Your task to perform on an android device: change your default location settings in chrome Image 0: 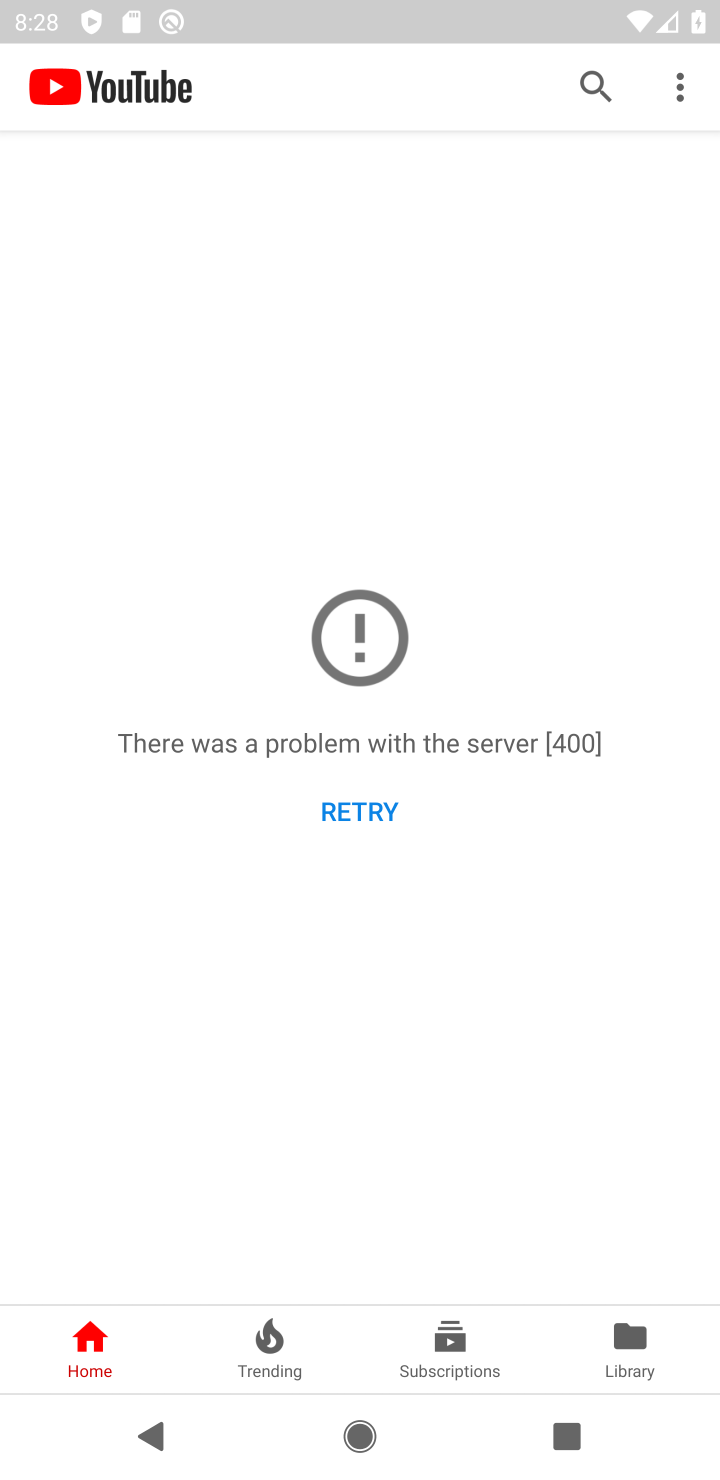
Step 0: press home button
Your task to perform on an android device: change your default location settings in chrome Image 1: 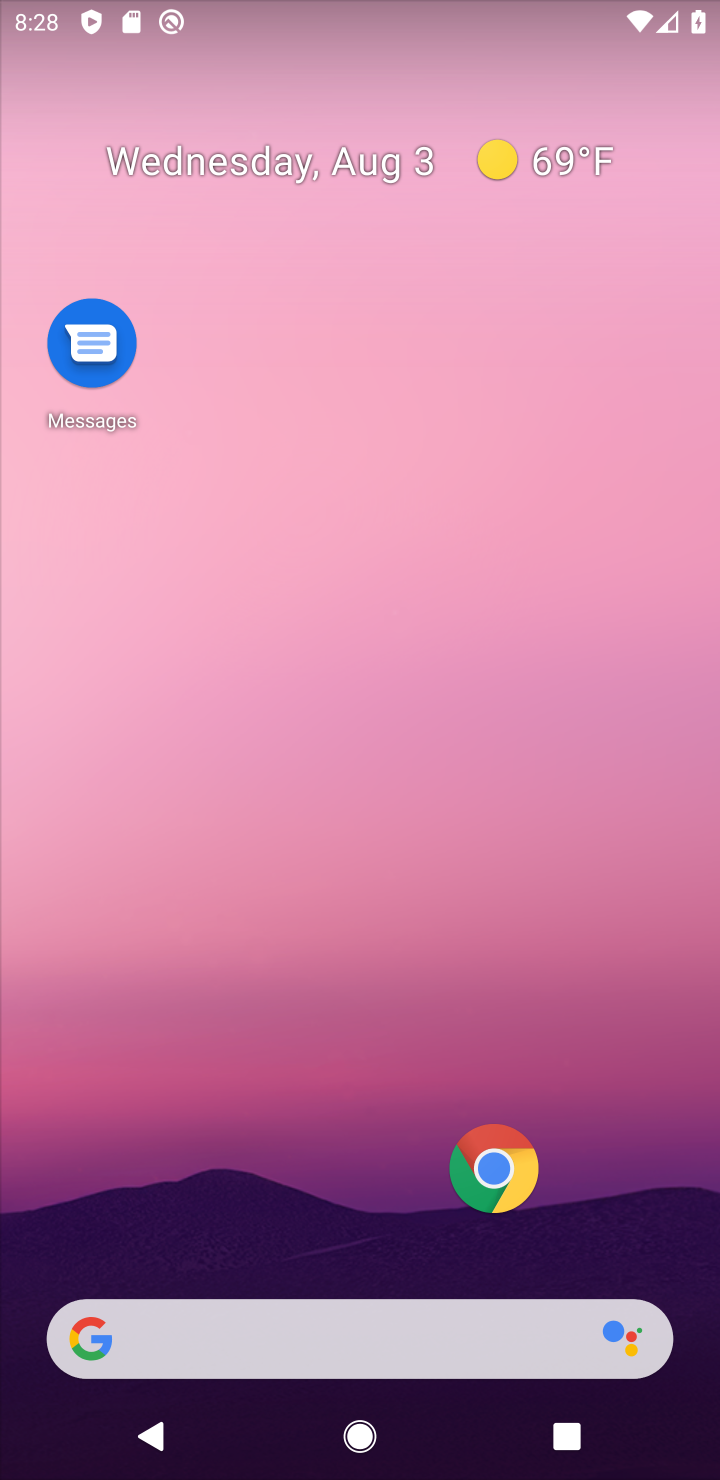
Step 1: click (475, 1188)
Your task to perform on an android device: change your default location settings in chrome Image 2: 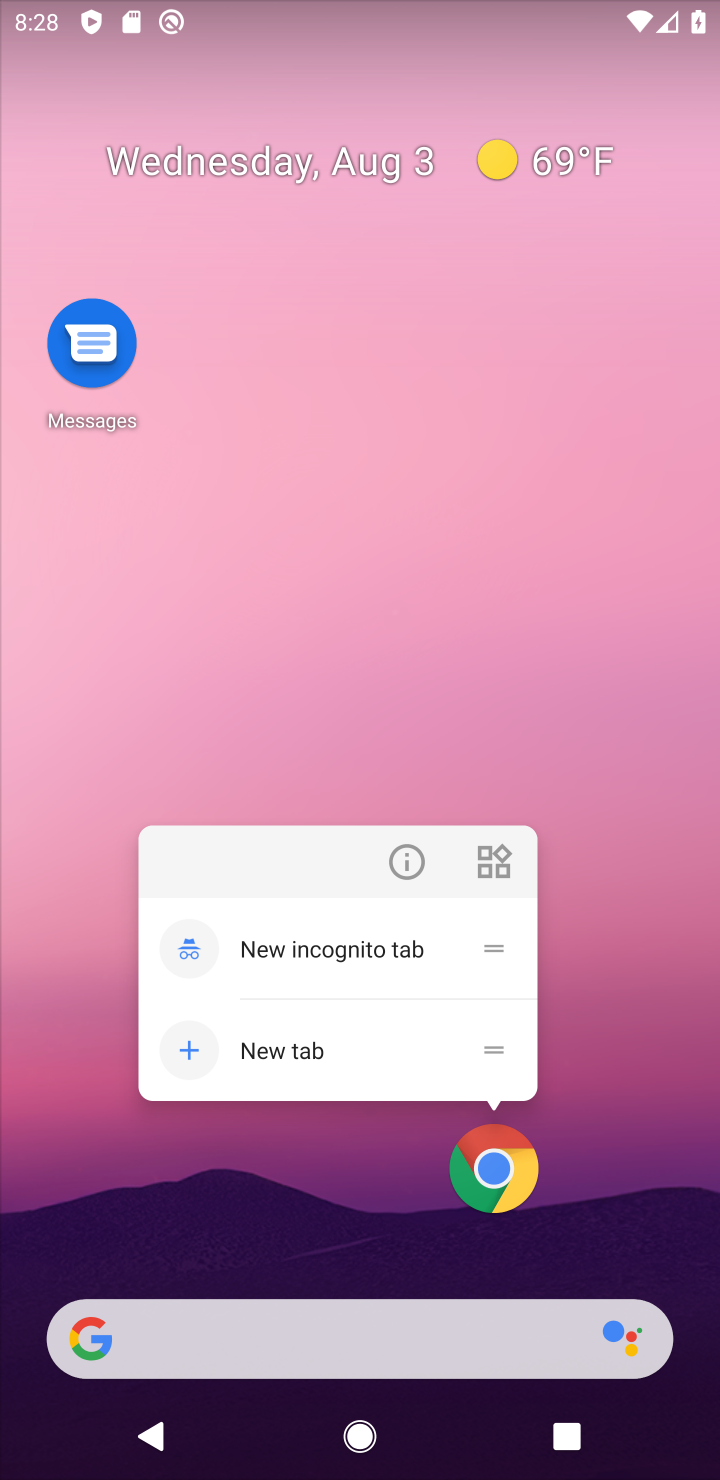
Step 2: click (506, 1183)
Your task to perform on an android device: change your default location settings in chrome Image 3: 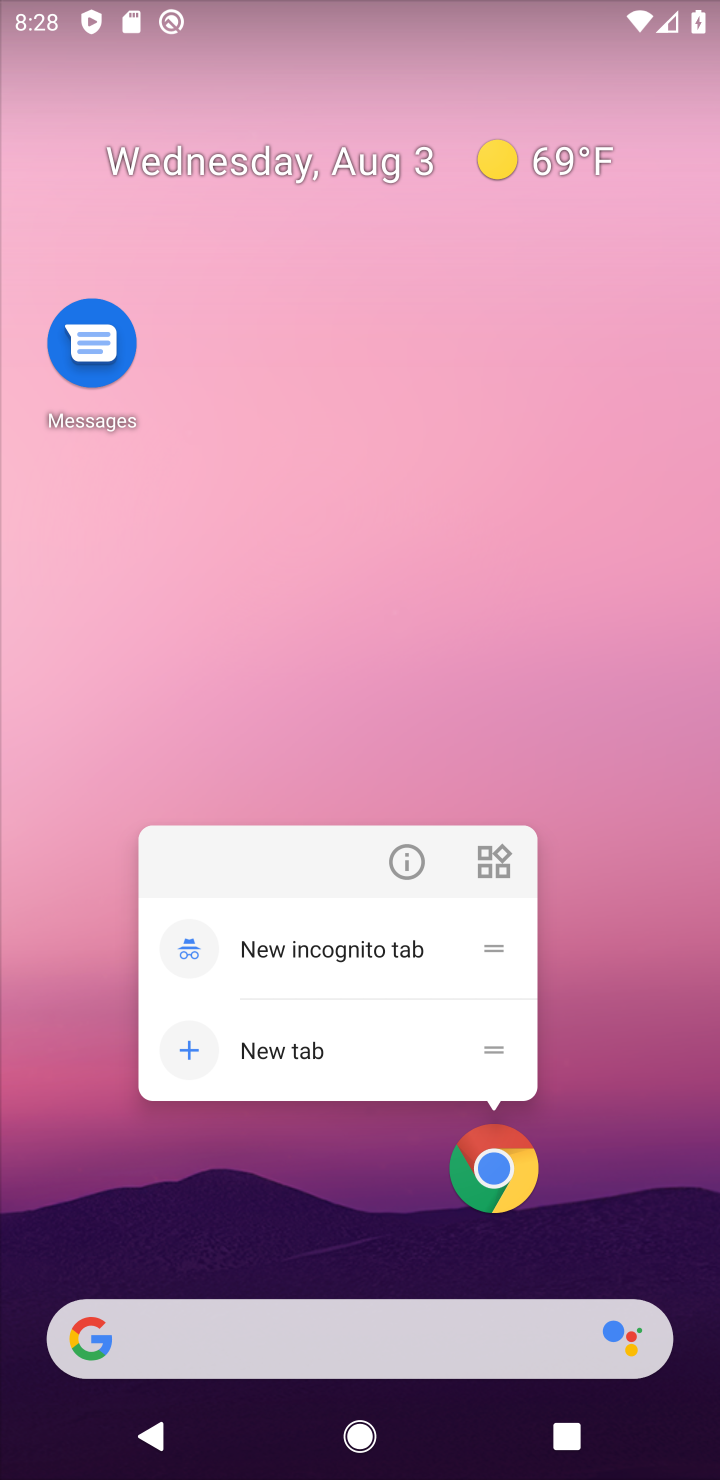
Step 3: click (510, 1163)
Your task to perform on an android device: change your default location settings in chrome Image 4: 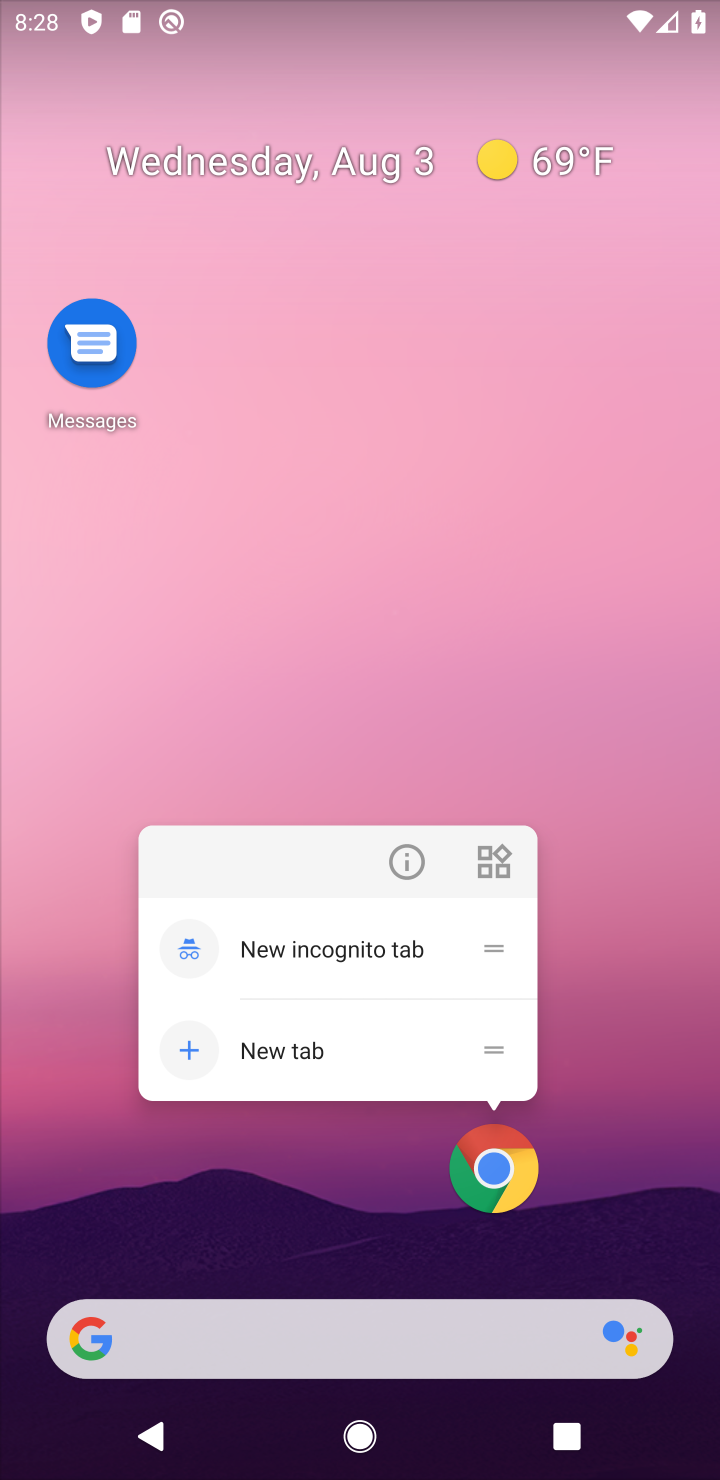
Step 4: click (510, 1163)
Your task to perform on an android device: change your default location settings in chrome Image 5: 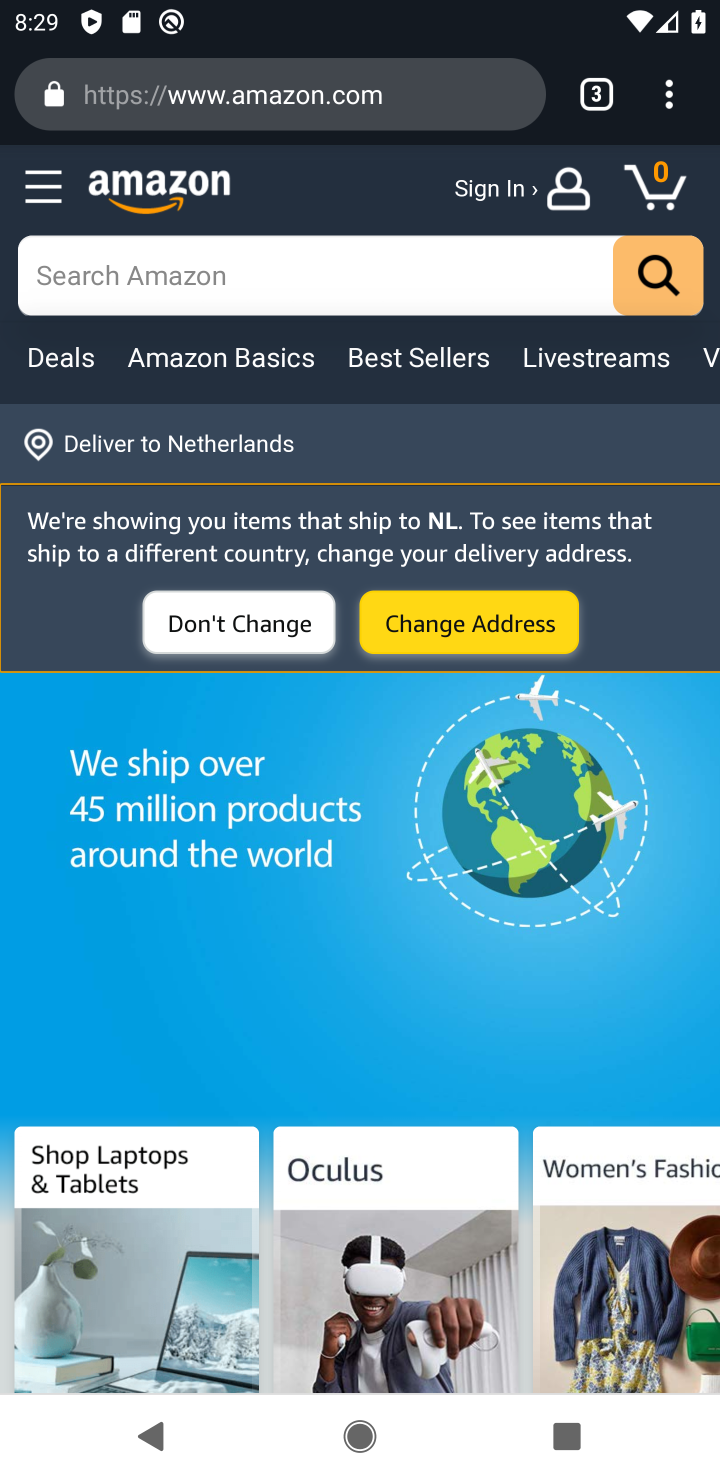
Step 5: click (666, 98)
Your task to perform on an android device: change your default location settings in chrome Image 6: 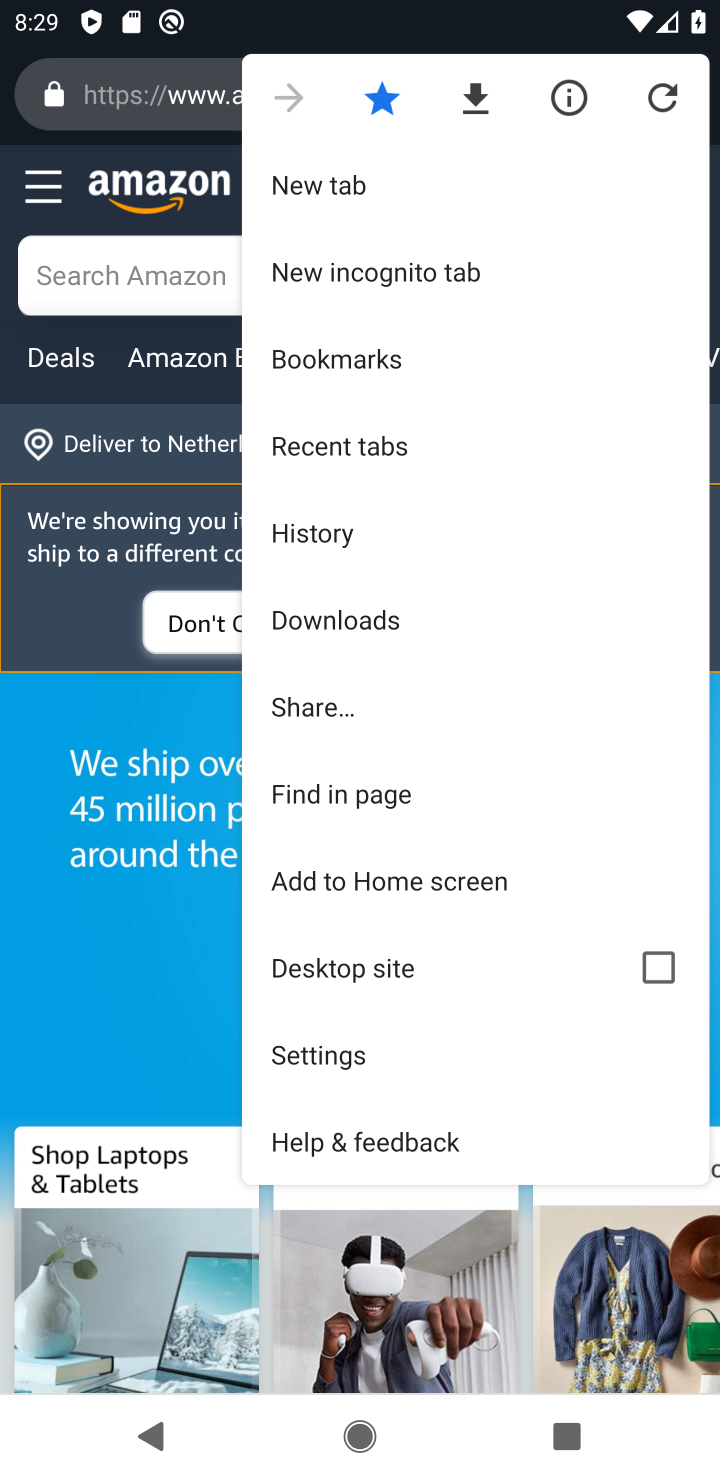
Step 6: click (327, 1060)
Your task to perform on an android device: change your default location settings in chrome Image 7: 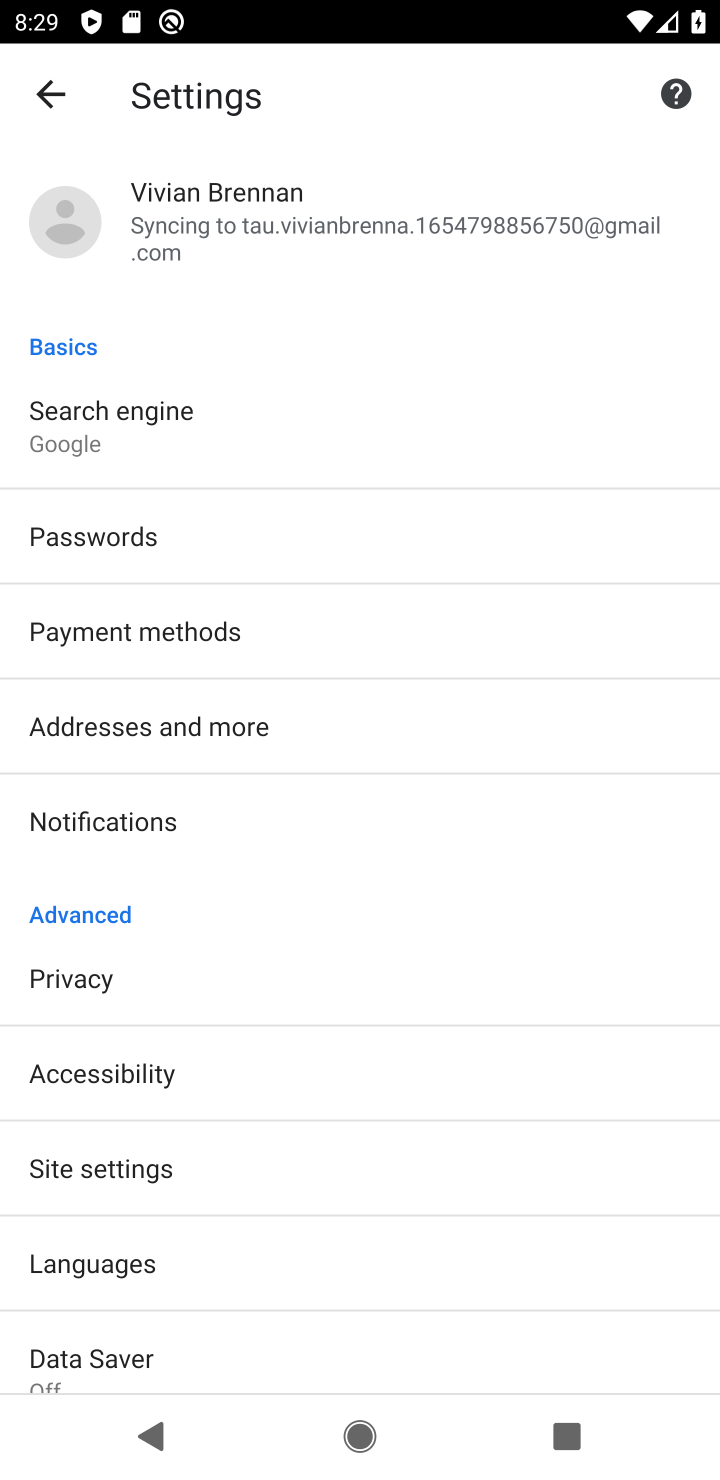
Step 7: click (148, 1155)
Your task to perform on an android device: change your default location settings in chrome Image 8: 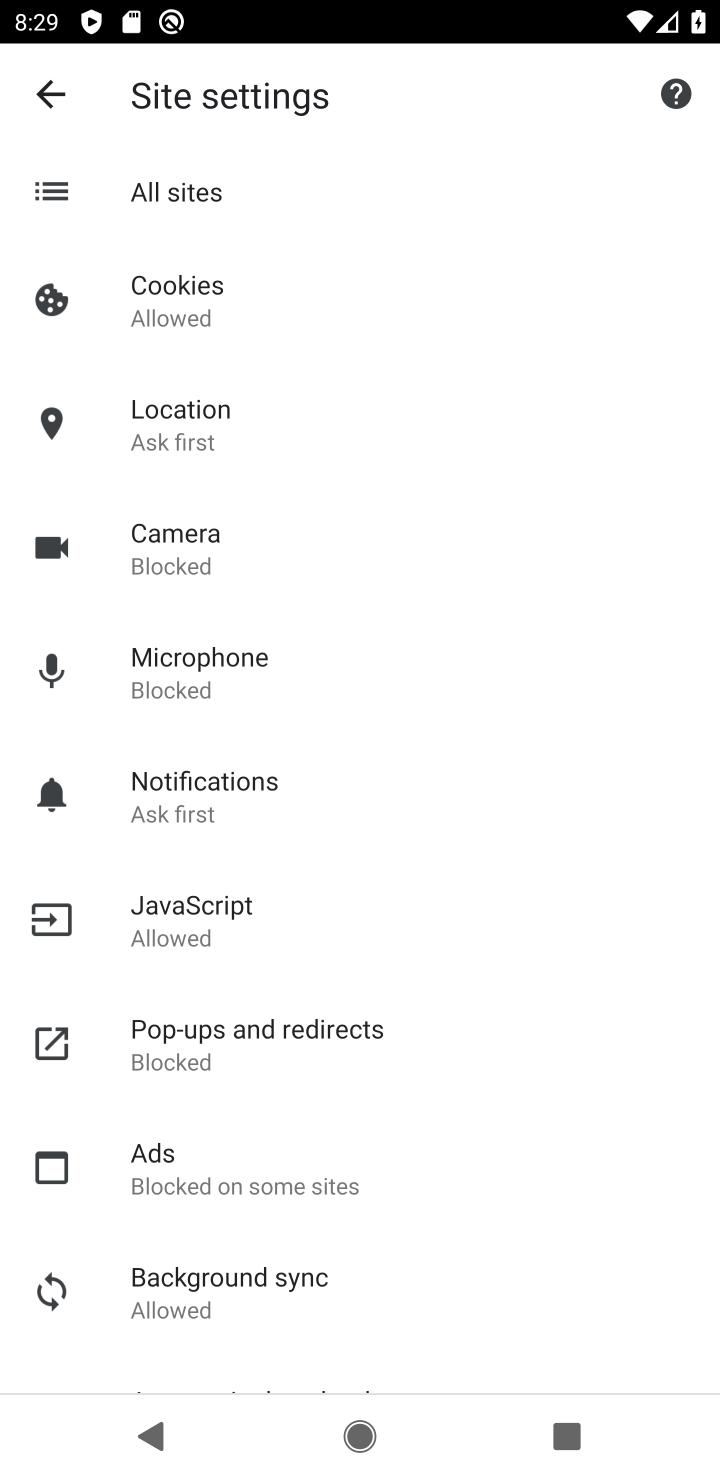
Step 8: click (218, 426)
Your task to perform on an android device: change your default location settings in chrome Image 9: 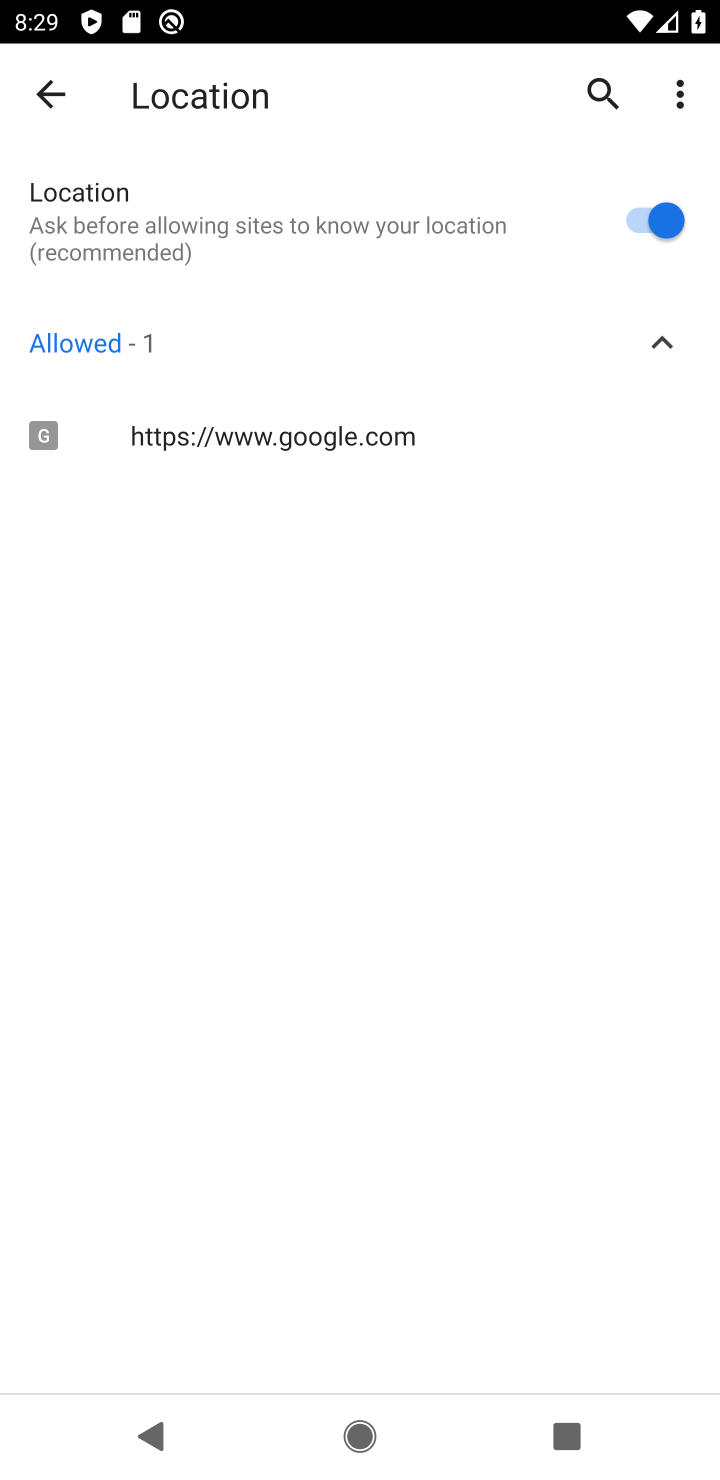
Step 9: click (635, 207)
Your task to perform on an android device: change your default location settings in chrome Image 10: 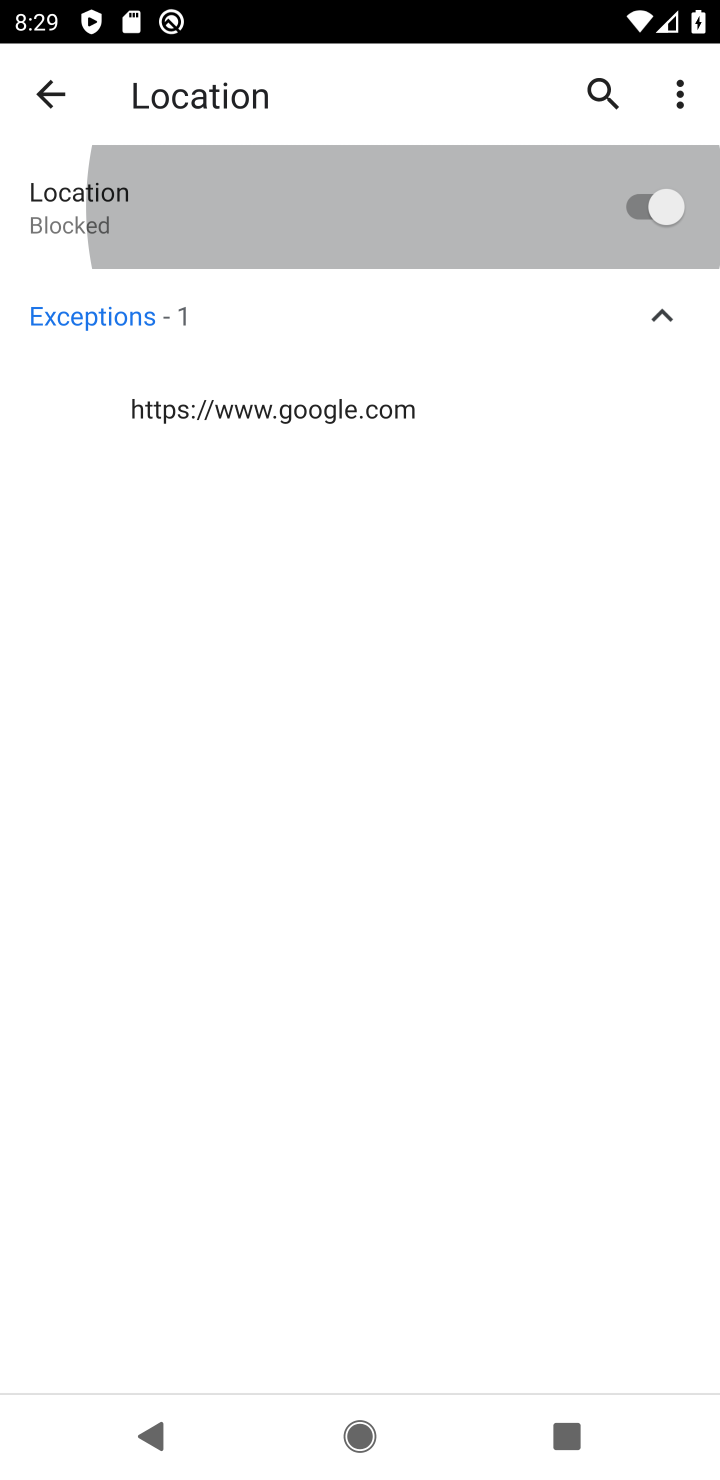
Step 10: task complete